Your task to perform on an android device: open app "Nova Launcher" (install if not already installed) Image 0: 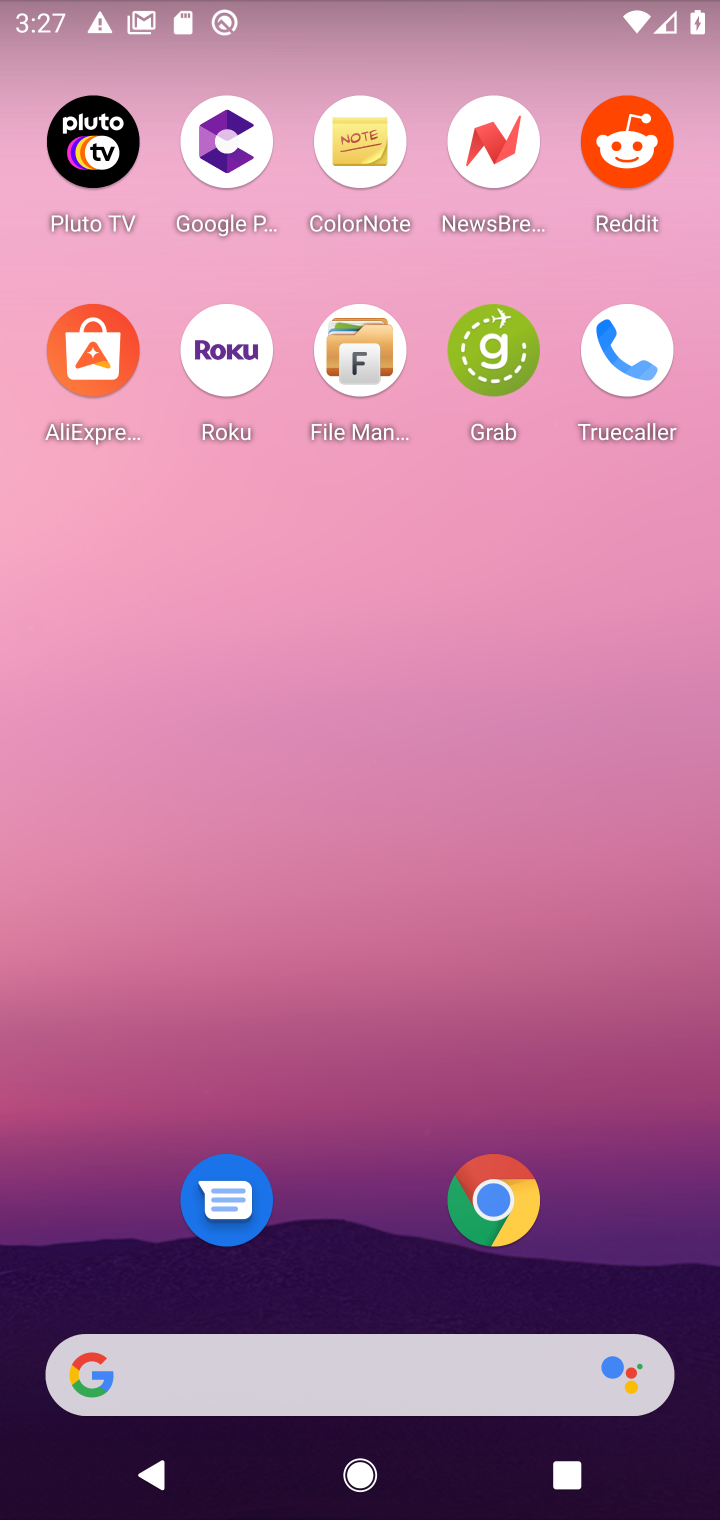
Step 0: drag from (318, 1202) to (502, 0)
Your task to perform on an android device: open app "Nova Launcher" (install if not already installed) Image 1: 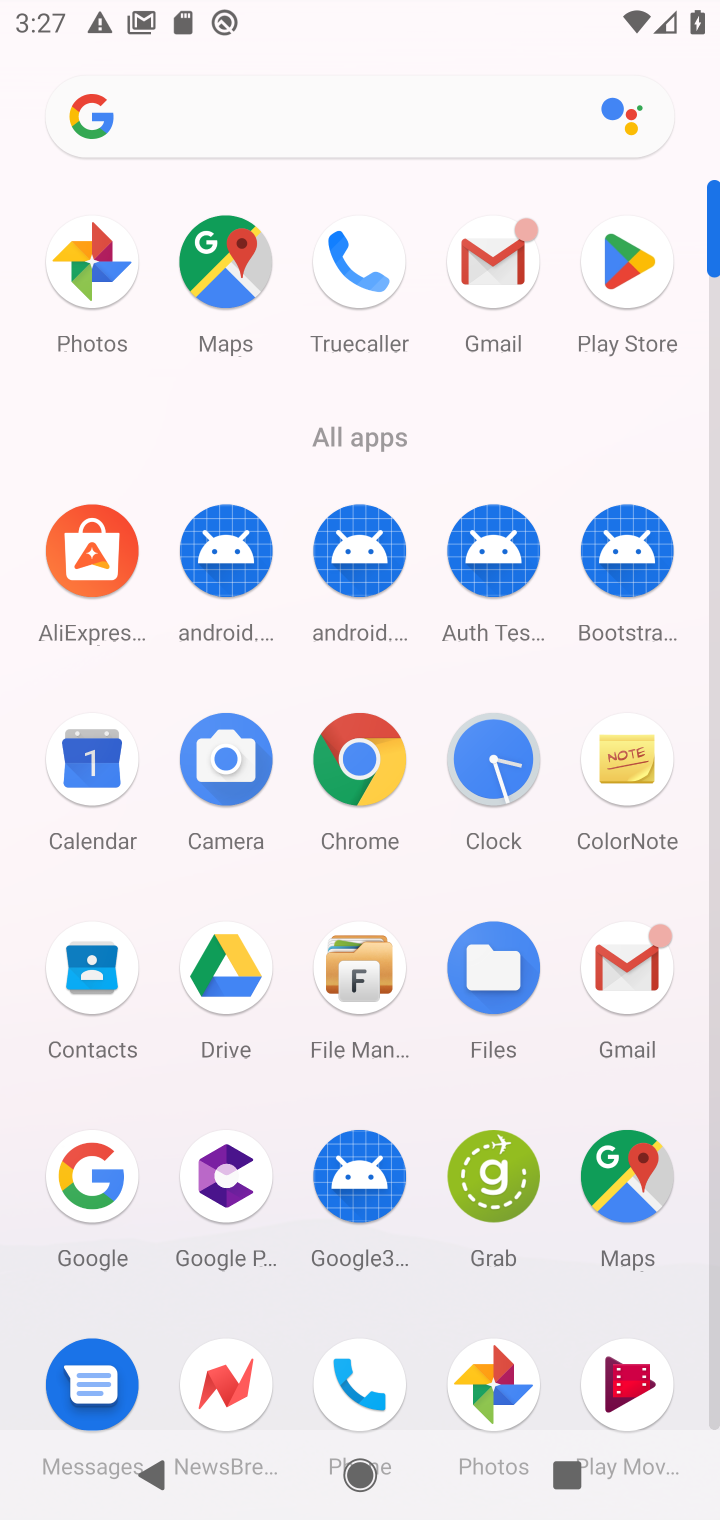
Step 1: click (626, 272)
Your task to perform on an android device: open app "Nova Launcher" (install if not already installed) Image 2: 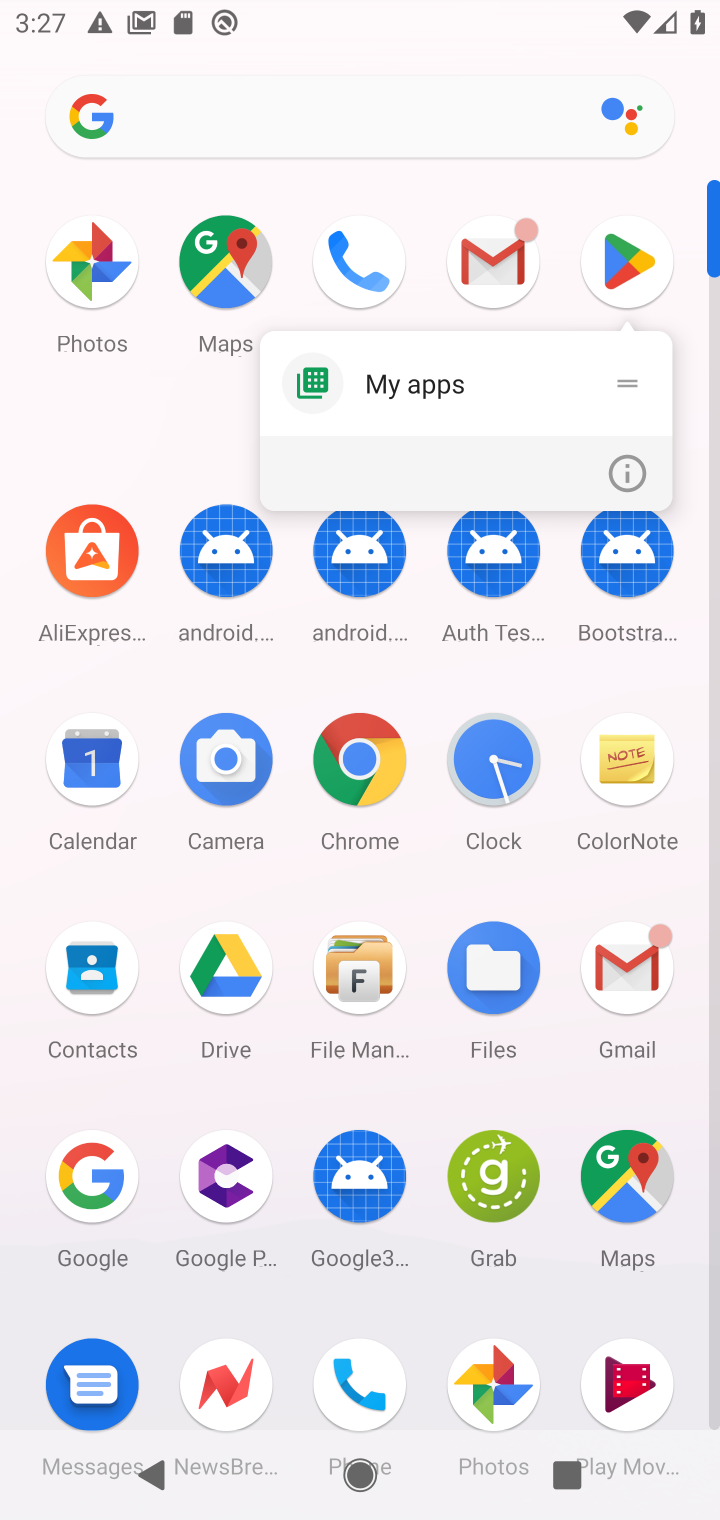
Step 2: click (628, 268)
Your task to perform on an android device: open app "Nova Launcher" (install if not already installed) Image 3: 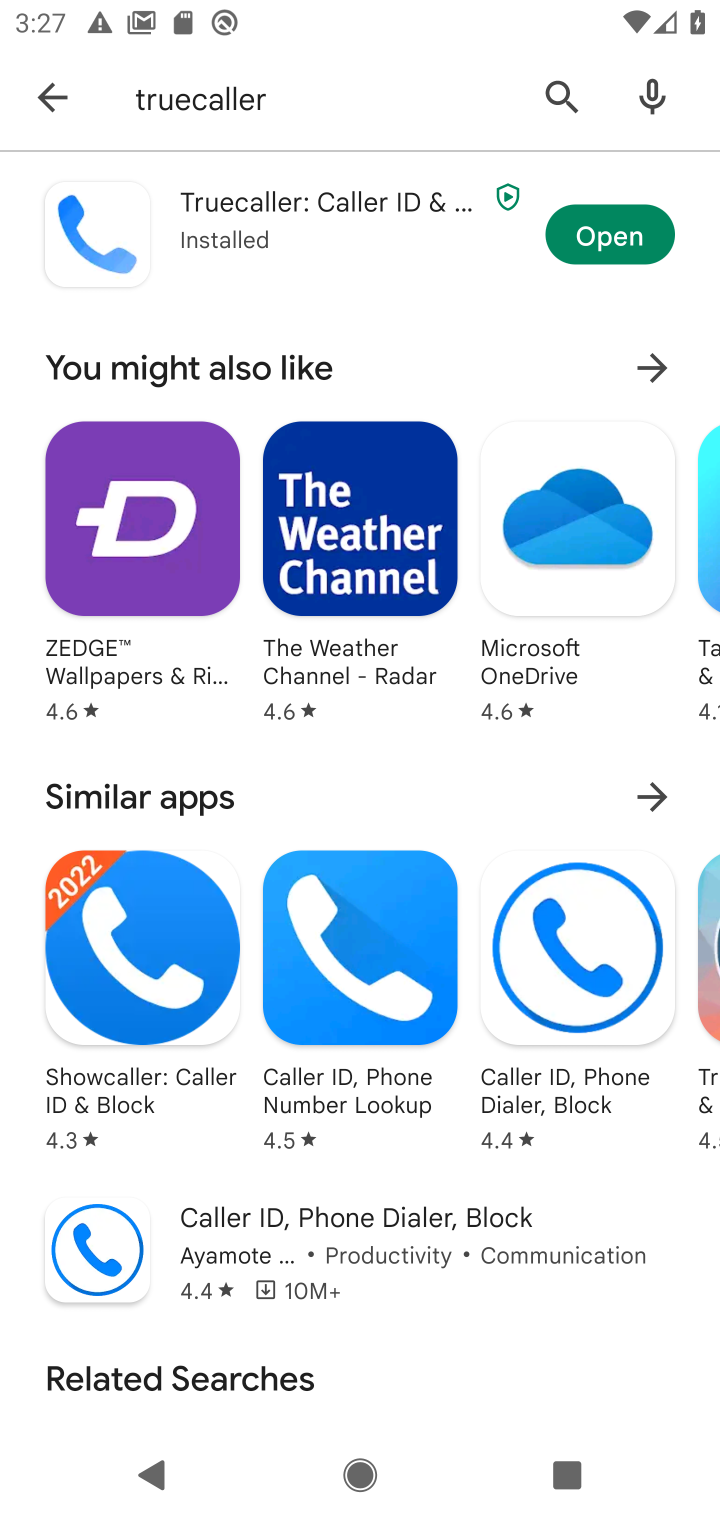
Step 3: click (326, 111)
Your task to perform on an android device: open app "Nova Launcher" (install if not already installed) Image 4: 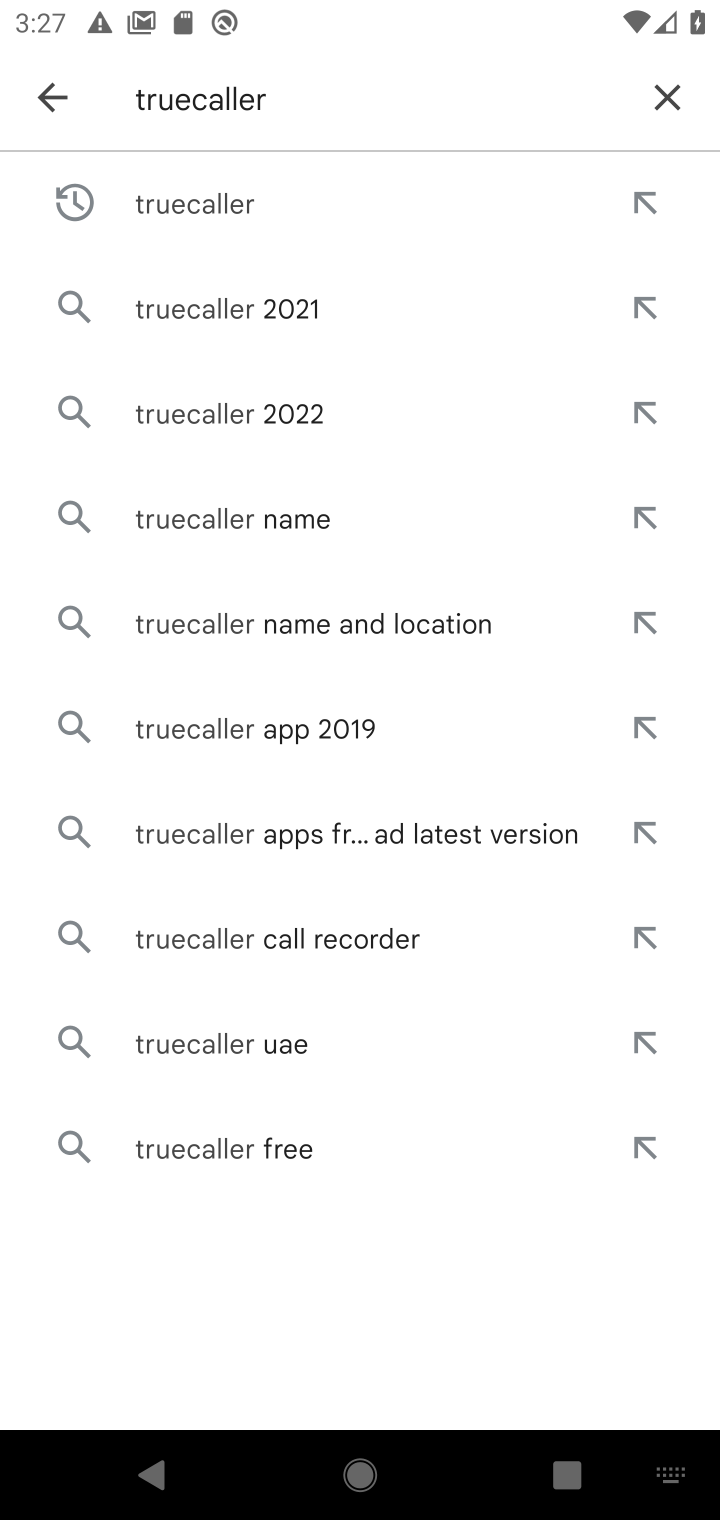
Step 4: click (671, 88)
Your task to perform on an android device: open app "Nova Launcher" (install if not already installed) Image 5: 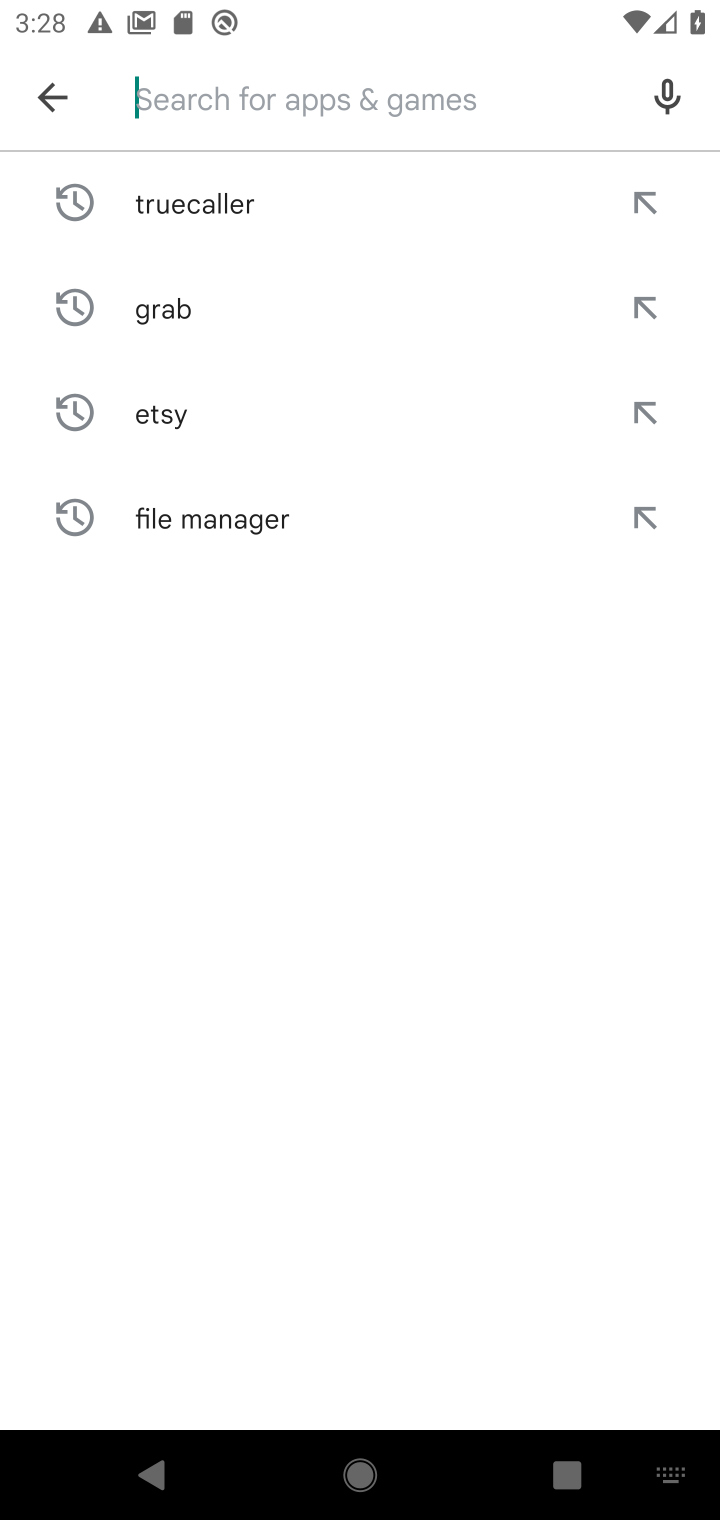
Step 5: type "Nova launcher"
Your task to perform on an android device: open app "Nova Launcher" (install if not already installed) Image 6: 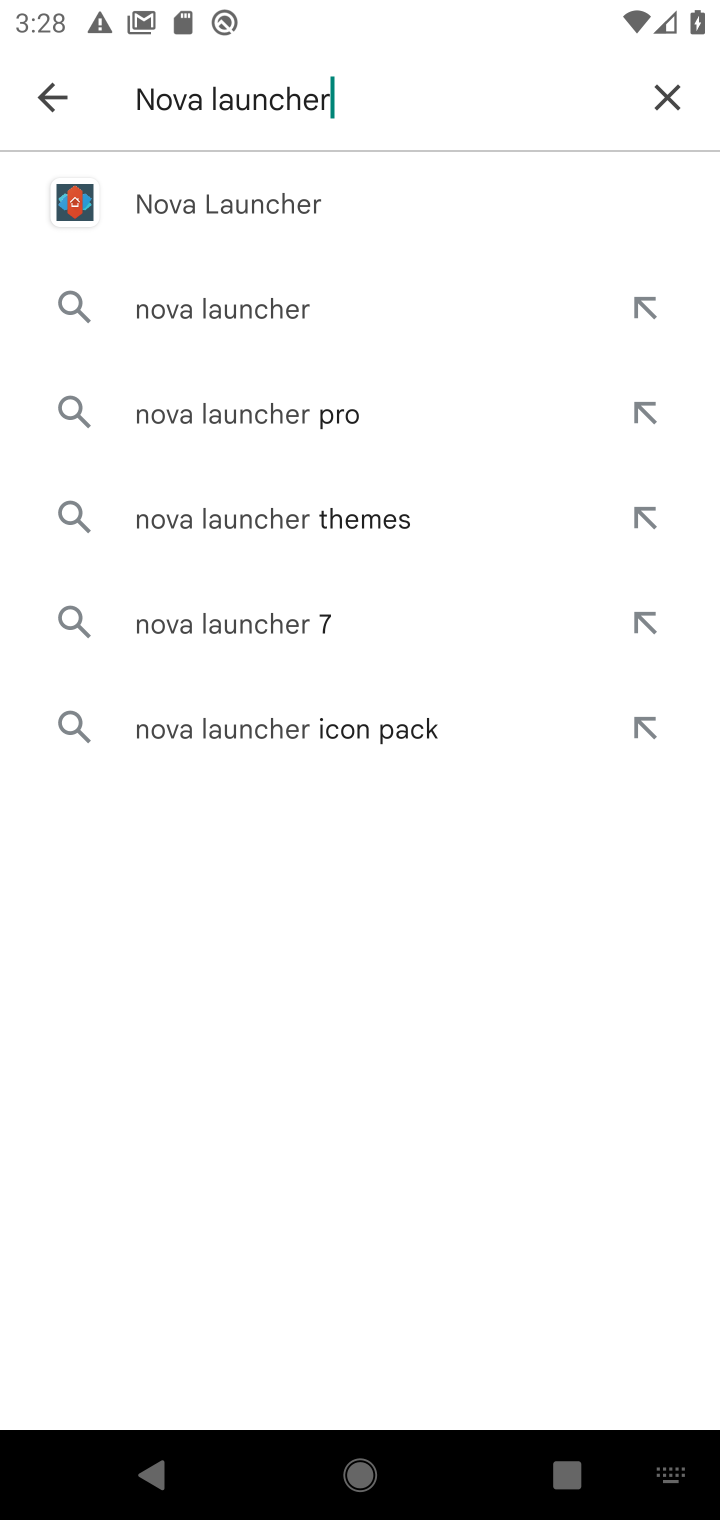
Step 6: click (252, 207)
Your task to perform on an android device: open app "Nova Launcher" (install if not already installed) Image 7: 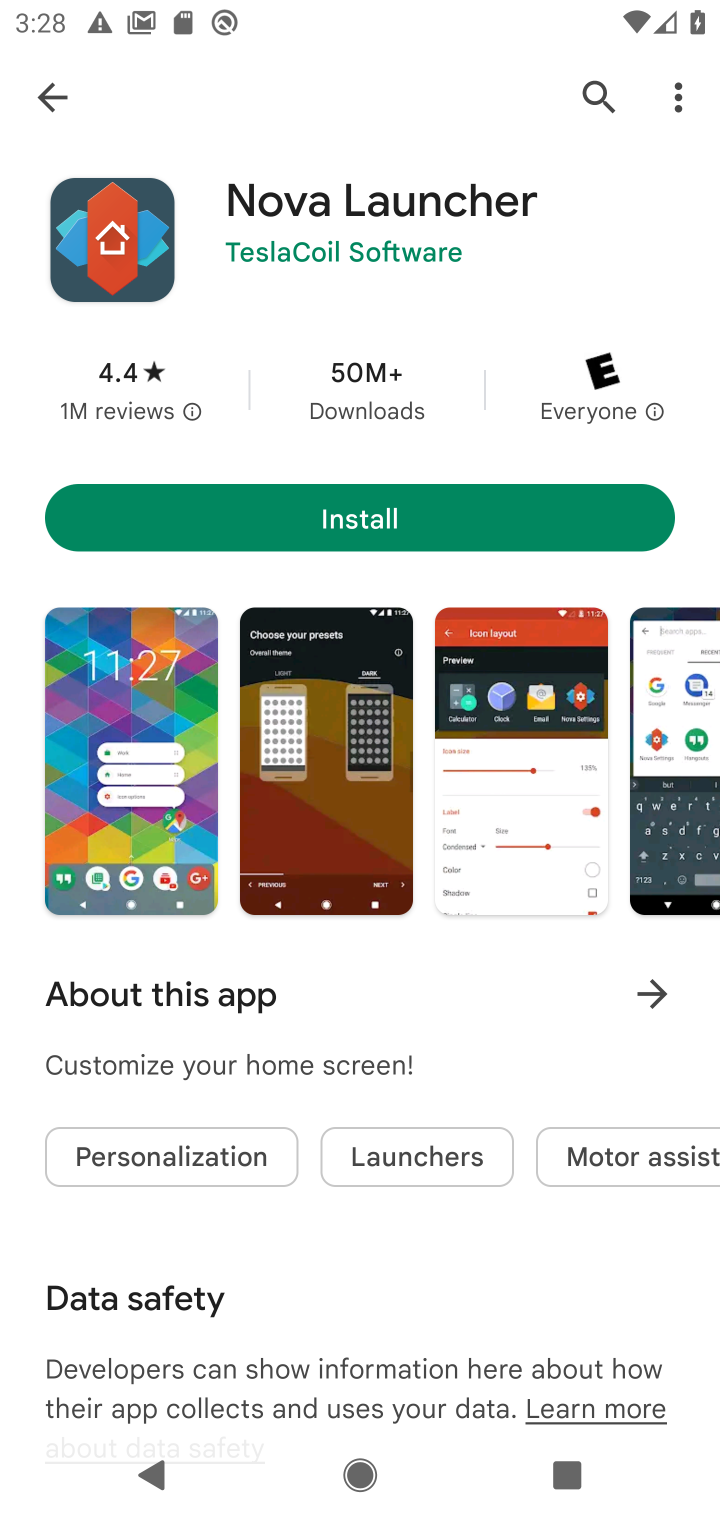
Step 7: click (480, 530)
Your task to perform on an android device: open app "Nova Launcher" (install if not already installed) Image 8: 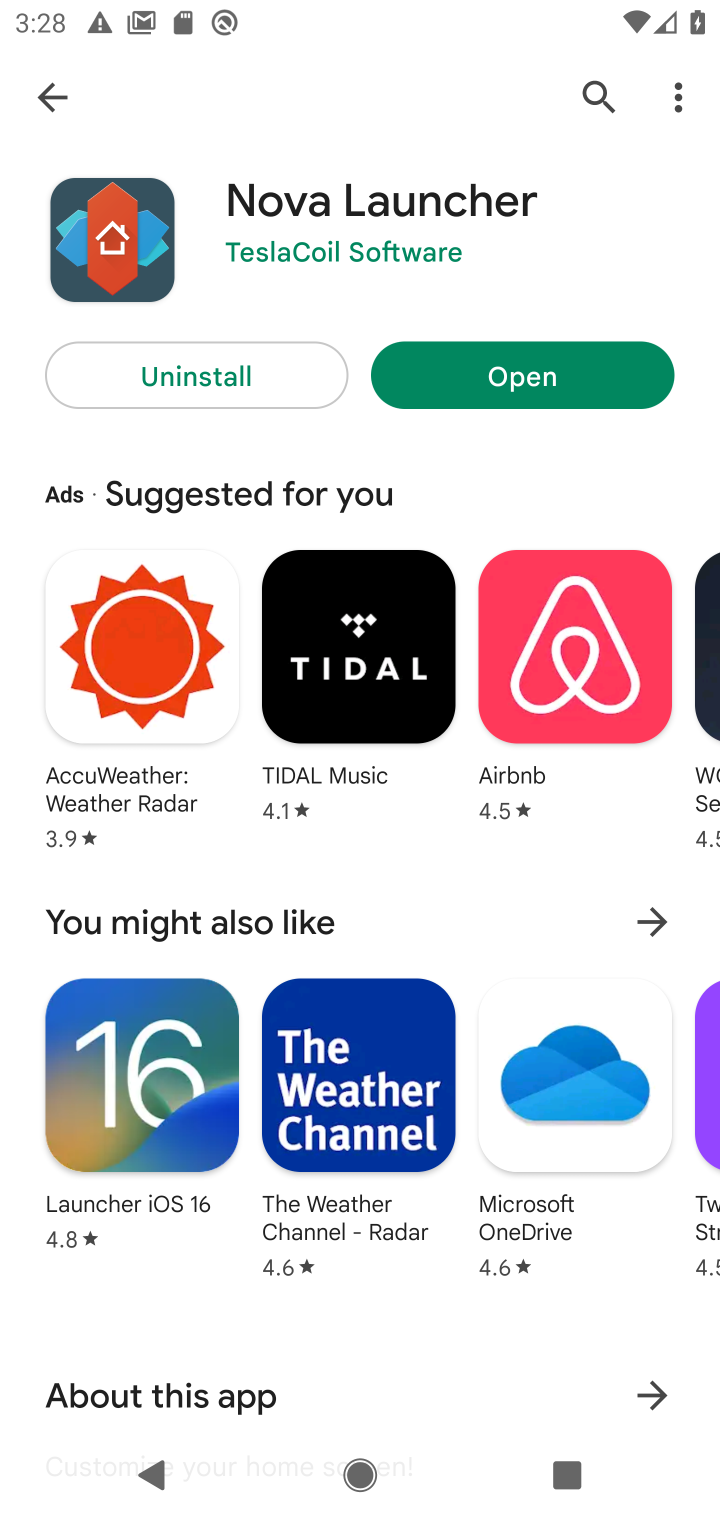
Step 8: click (583, 379)
Your task to perform on an android device: open app "Nova Launcher" (install if not already installed) Image 9: 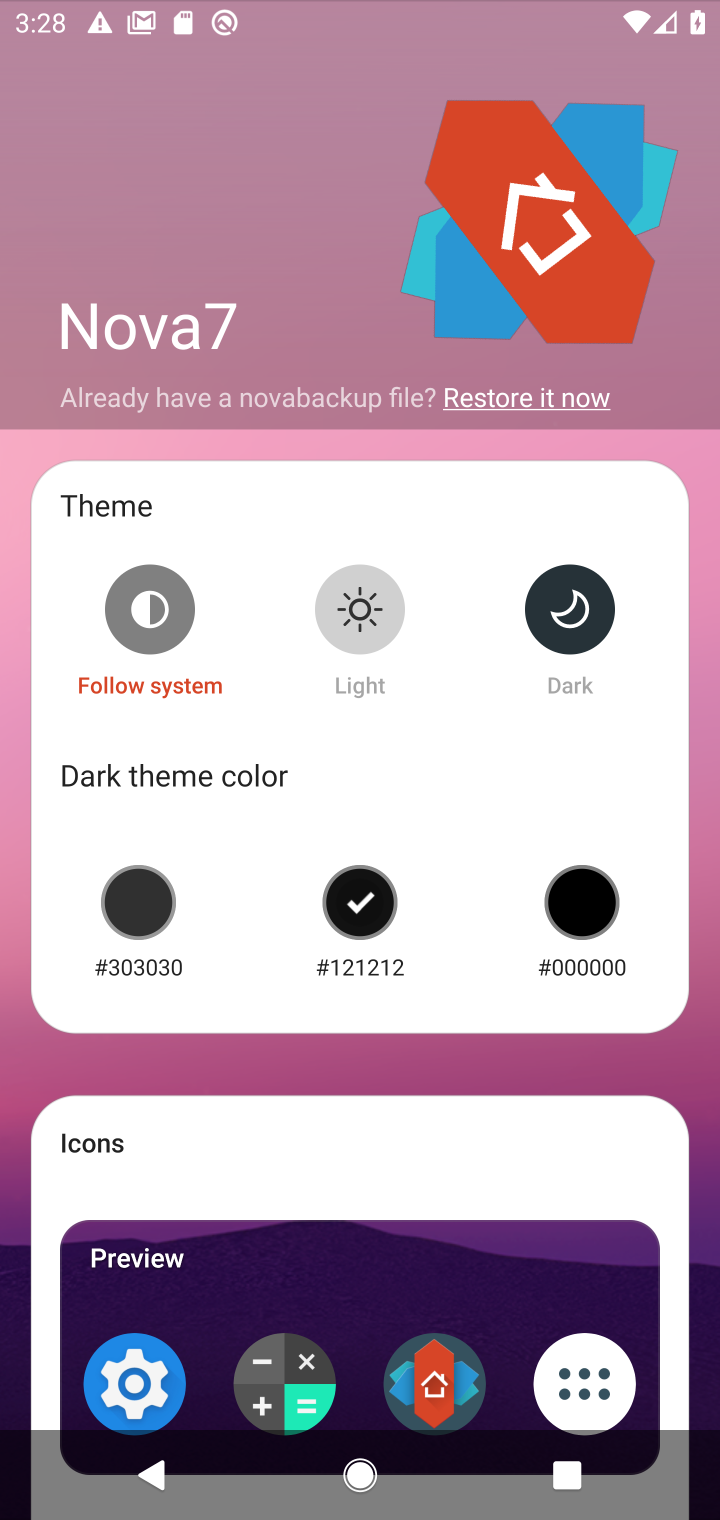
Step 9: task complete